Your task to perform on an android device: Open Amazon Image 0: 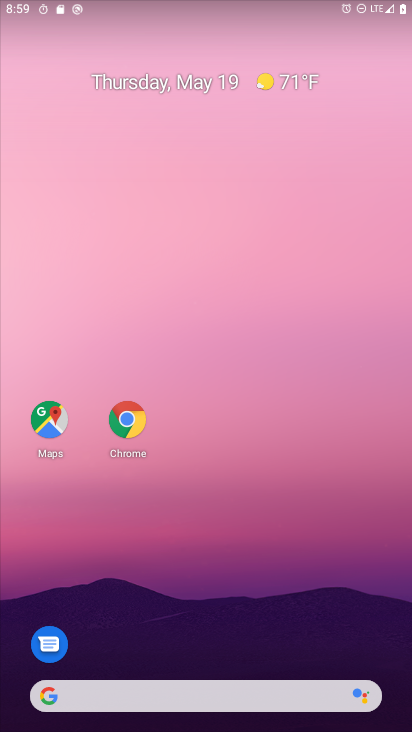
Step 0: click (133, 418)
Your task to perform on an android device: Open Amazon Image 1: 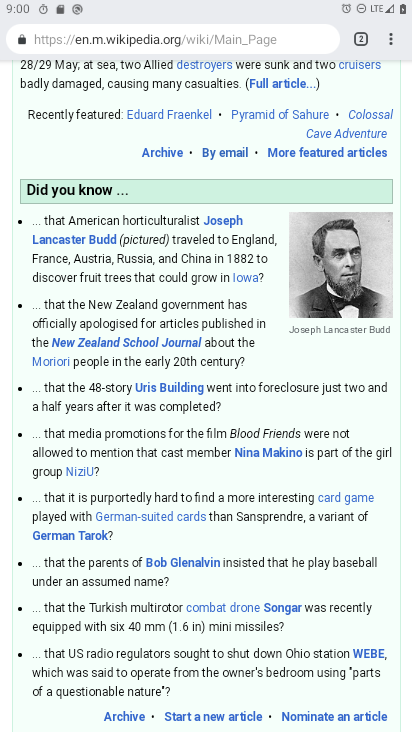
Step 1: click (368, 31)
Your task to perform on an android device: Open Amazon Image 2: 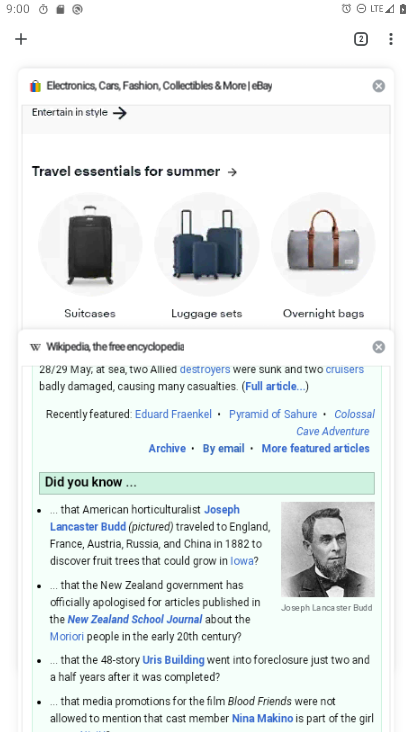
Step 2: click (382, 81)
Your task to perform on an android device: Open Amazon Image 3: 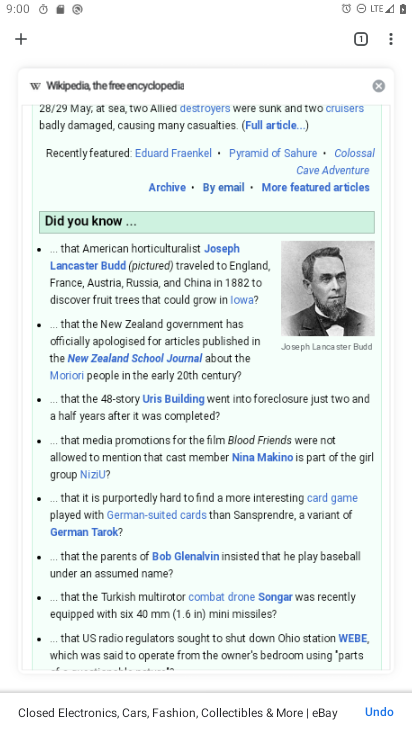
Step 3: click (378, 82)
Your task to perform on an android device: Open Amazon Image 4: 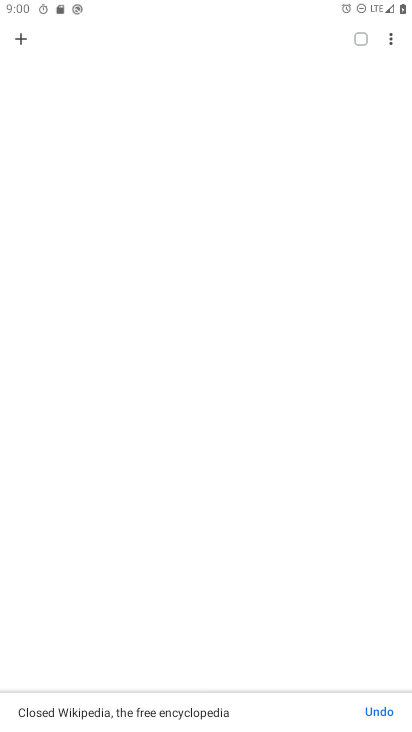
Step 4: click (19, 37)
Your task to perform on an android device: Open Amazon Image 5: 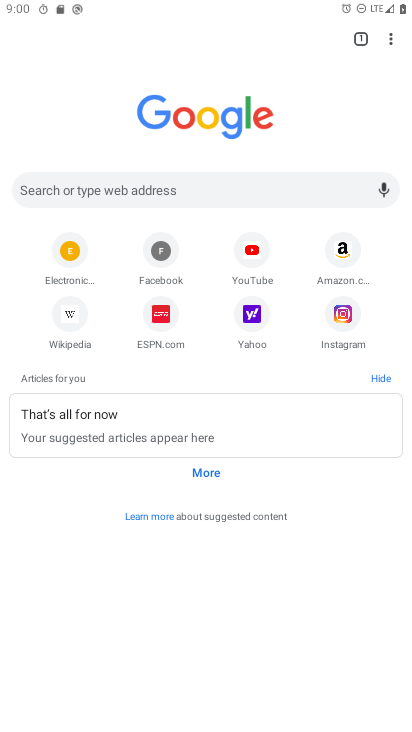
Step 5: click (336, 259)
Your task to perform on an android device: Open Amazon Image 6: 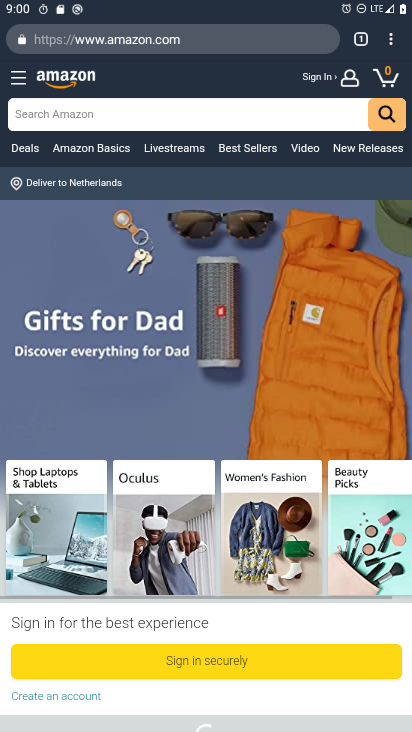
Step 6: task complete